Your task to perform on an android device: Search for Mexican restaurants on Maps Image 0: 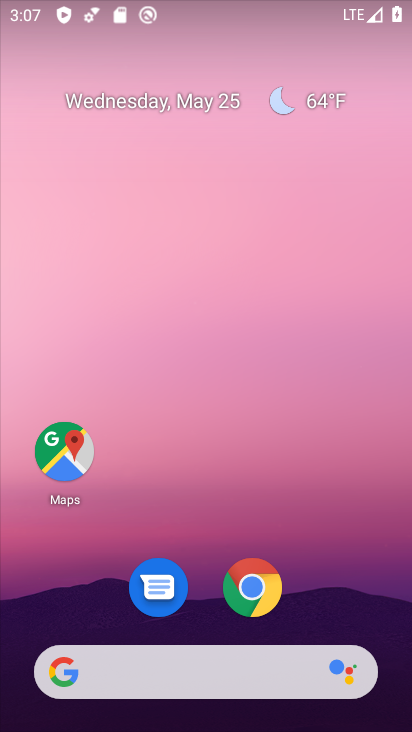
Step 0: click (345, 614)
Your task to perform on an android device: Search for Mexican restaurants on Maps Image 1: 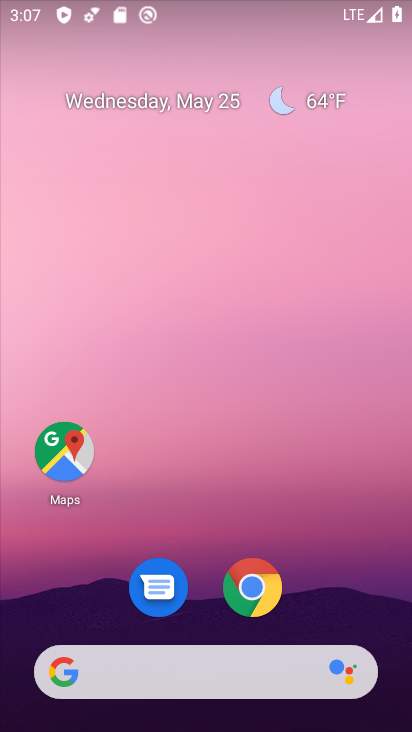
Step 1: drag from (345, 614) to (254, 212)
Your task to perform on an android device: Search for Mexican restaurants on Maps Image 2: 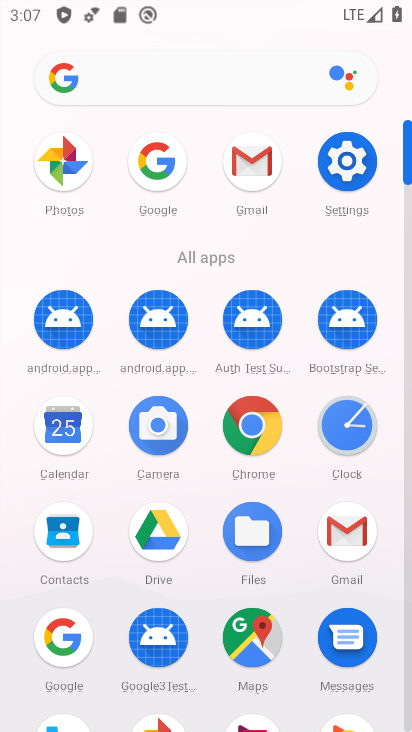
Step 2: click (248, 626)
Your task to perform on an android device: Search for Mexican restaurants on Maps Image 3: 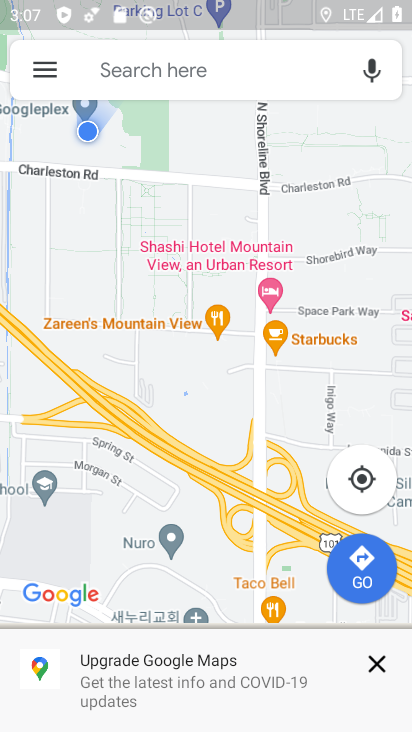
Step 3: click (201, 82)
Your task to perform on an android device: Search for Mexican restaurants on Maps Image 4: 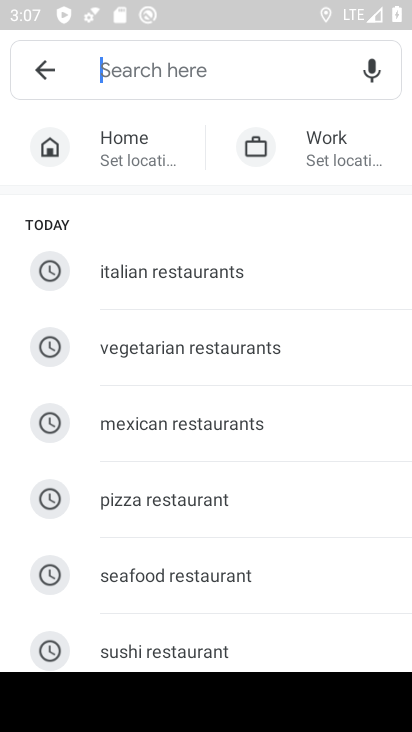
Step 4: click (184, 427)
Your task to perform on an android device: Search for Mexican restaurants on Maps Image 5: 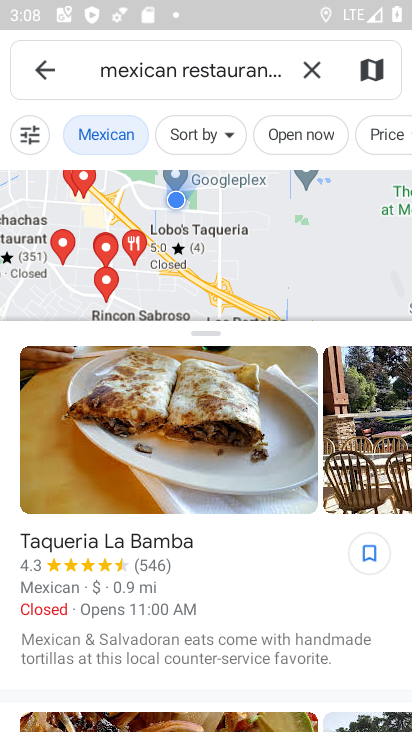
Step 5: task complete